Your task to perform on an android device: Set the phone to "Do not disturb". Image 0: 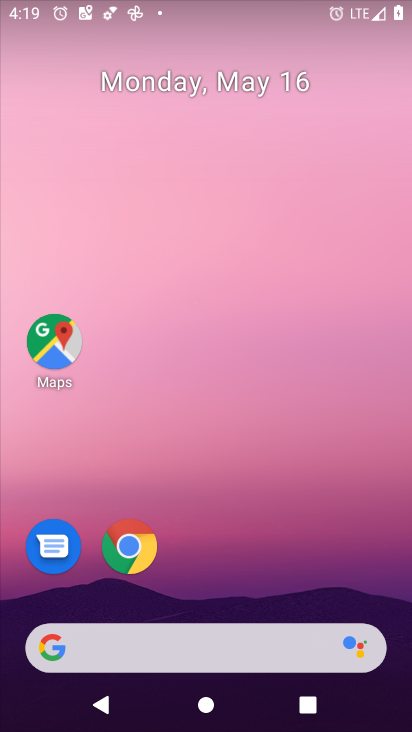
Step 0: drag from (342, 572) to (365, 133)
Your task to perform on an android device: Set the phone to "Do not disturb". Image 1: 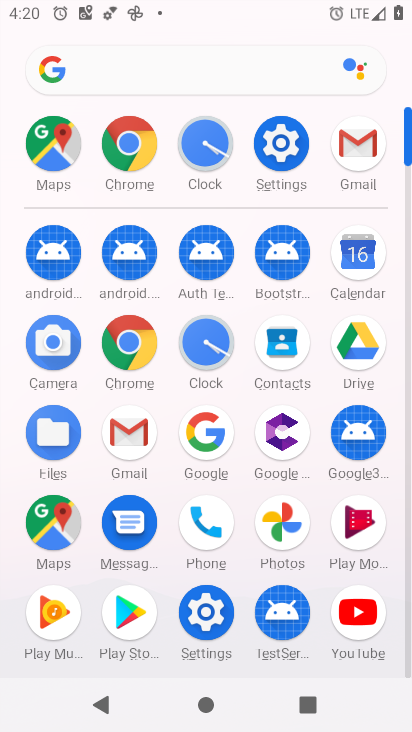
Step 1: click (277, 154)
Your task to perform on an android device: Set the phone to "Do not disturb". Image 2: 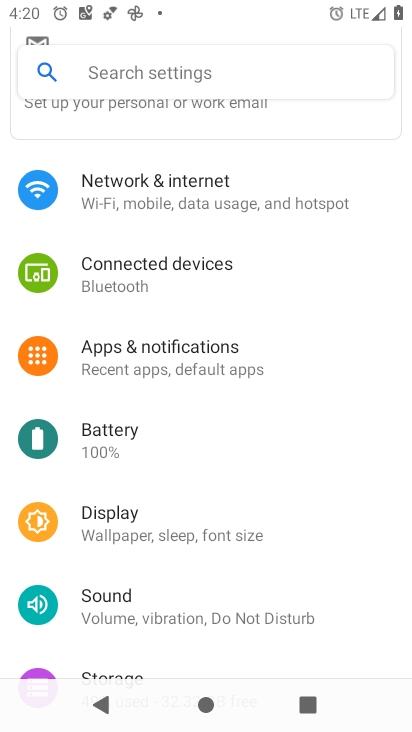
Step 2: drag from (342, 623) to (333, 467)
Your task to perform on an android device: Set the phone to "Do not disturb". Image 3: 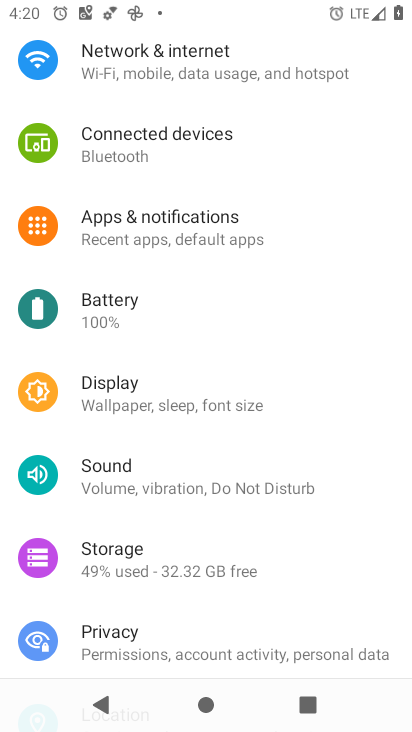
Step 3: drag from (332, 600) to (350, 417)
Your task to perform on an android device: Set the phone to "Do not disturb". Image 4: 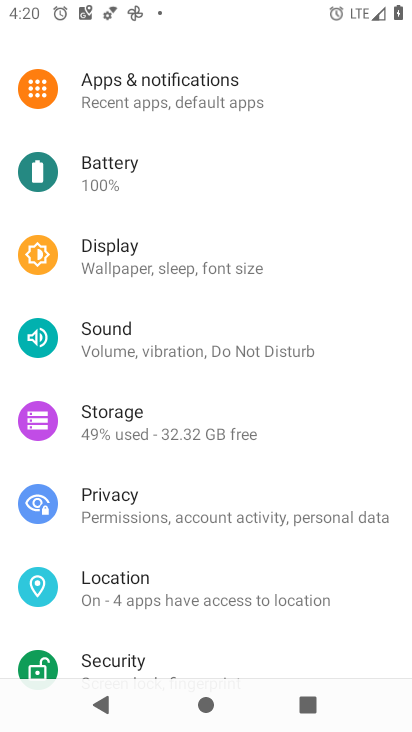
Step 4: drag from (346, 648) to (356, 459)
Your task to perform on an android device: Set the phone to "Do not disturb". Image 5: 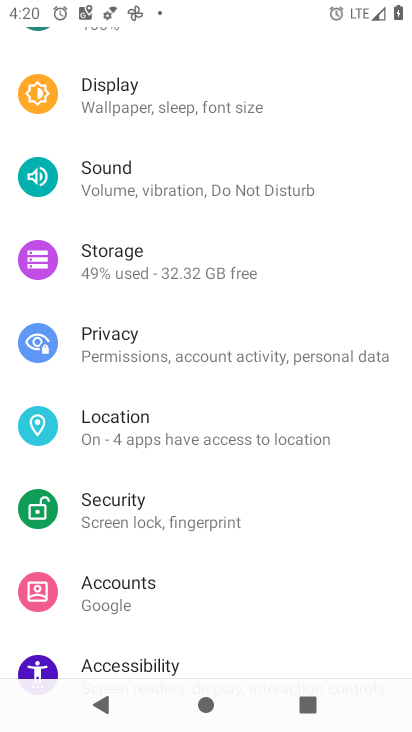
Step 5: drag from (324, 644) to (341, 446)
Your task to perform on an android device: Set the phone to "Do not disturb". Image 6: 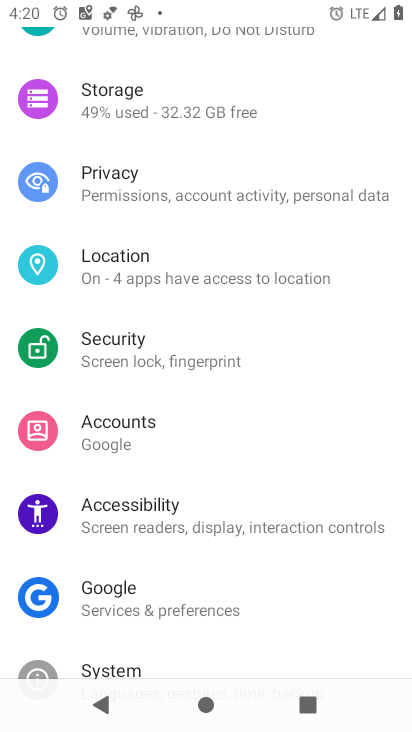
Step 6: drag from (312, 619) to (331, 449)
Your task to perform on an android device: Set the phone to "Do not disturb". Image 7: 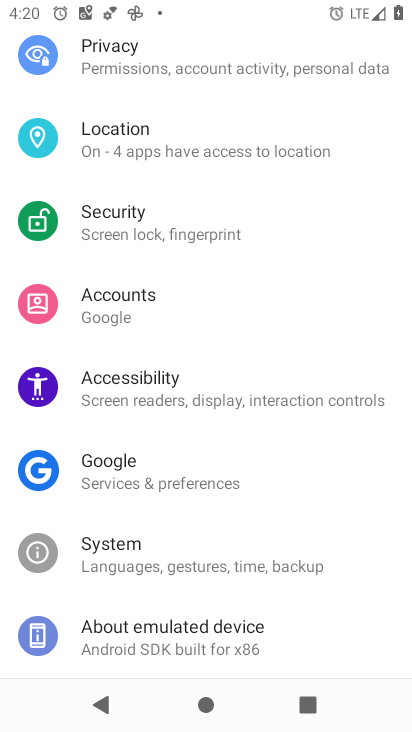
Step 7: drag from (329, 624) to (329, 428)
Your task to perform on an android device: Set the phone to "Do not disturb". Image 8: 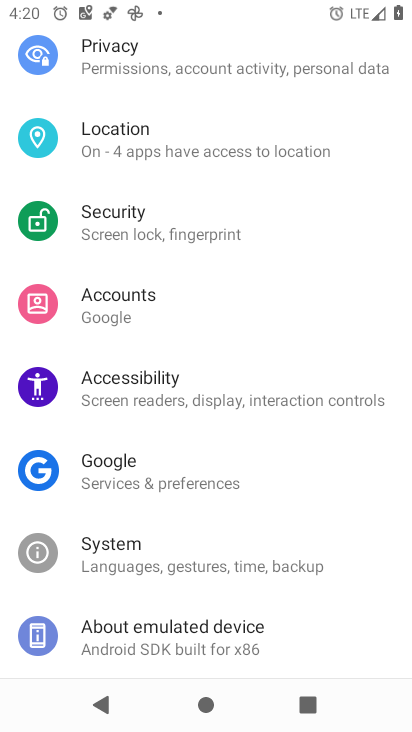
Step 8: drag from (361, 284) to (362, 432)
Your task to perform on an android device: Set the phone to "Do not disturb". Image 9: 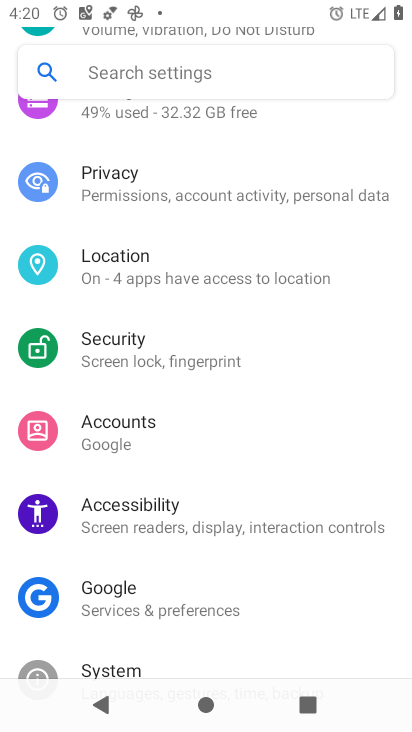
Step 9: drag from (373, 274) to (348, 472)
Your task to perform on an android device: Set the phone to "Do not disturb". Image 10: 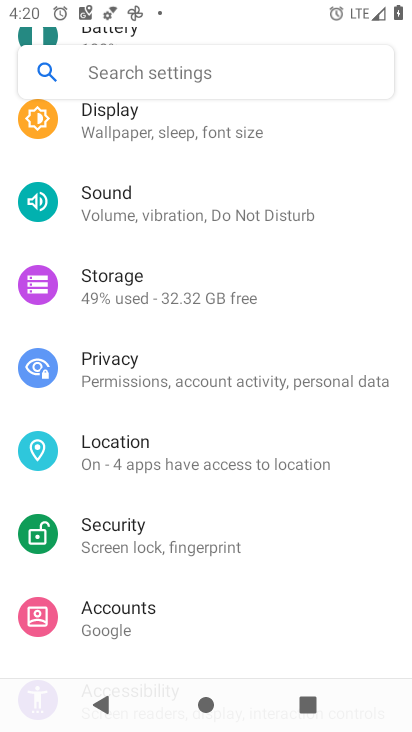
Step 10: drag from (348, 263) to (344, 469)
Your task to perform on an android device: Set the phone to "Do not disturb". Image 11: 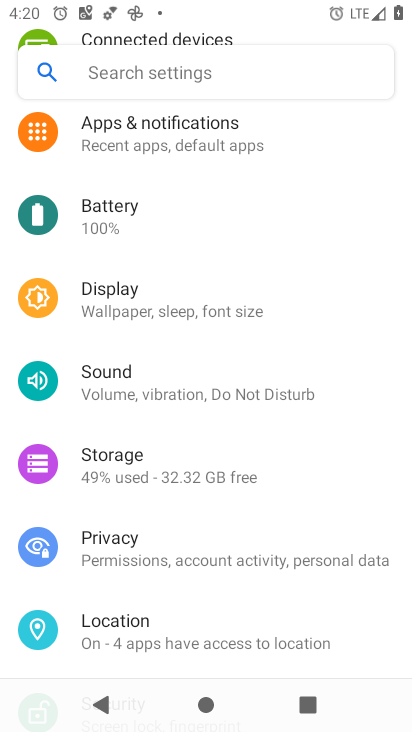
Step 11: drag from (335, 299) to (337, 433)
Your task to perform on an android device: Set the phone to "Do not disturb". Image 12: 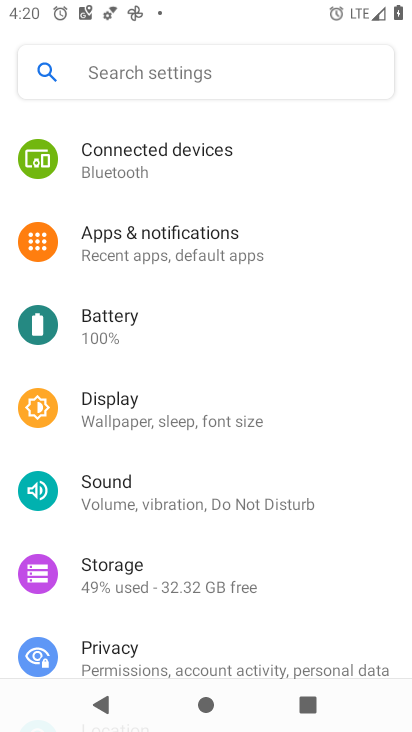
Step 12: click (280, 503)
Your task to perform on an android device: Set the phone to "Do not disturb". Image 13: 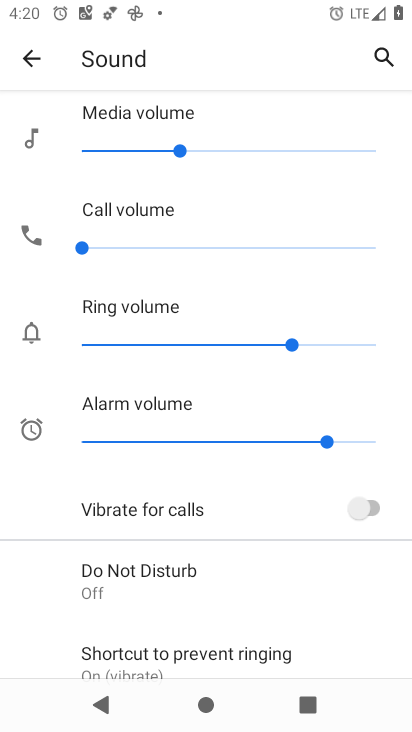
Step 13: click (132, 591)
Your task to perform on an android device: Set the phone to "Do not disturb". Image 14: 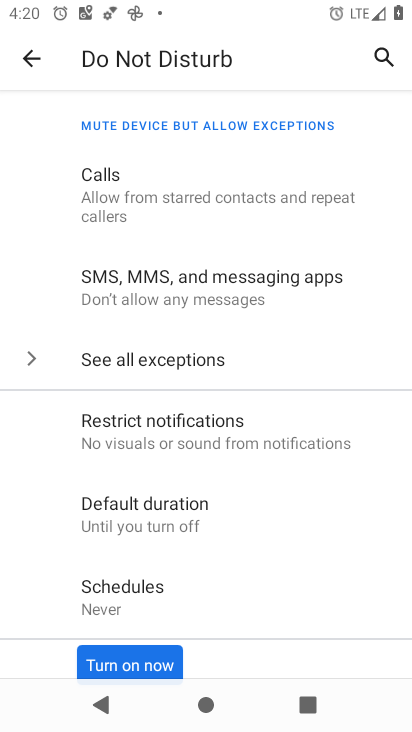
Step 14: drag from (244, 619) to (268, 439)
Your task to perform on an android device: Set the phone to "Do not disturb". Image 15: 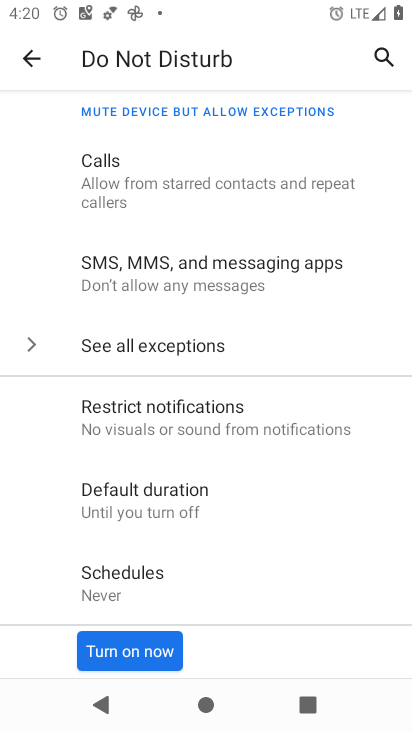
Step 15: click (161, 665)
Your task to perform on an android device: Set the phone to "Do not disturb". Image 16: 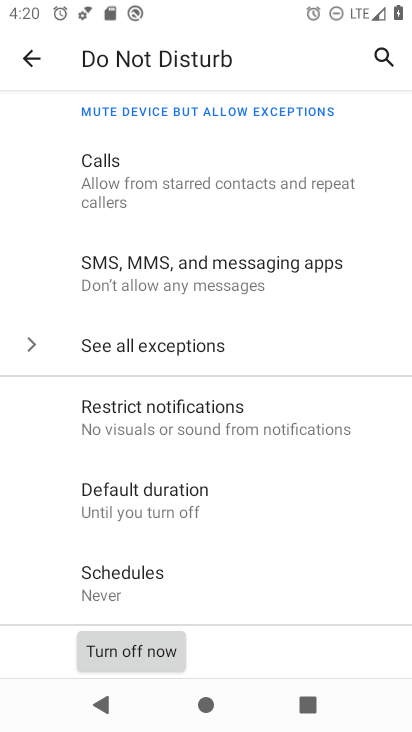
Step 16: task complete